Your task to perform on an android device: choose inbox layout in the gmail app Image 0: 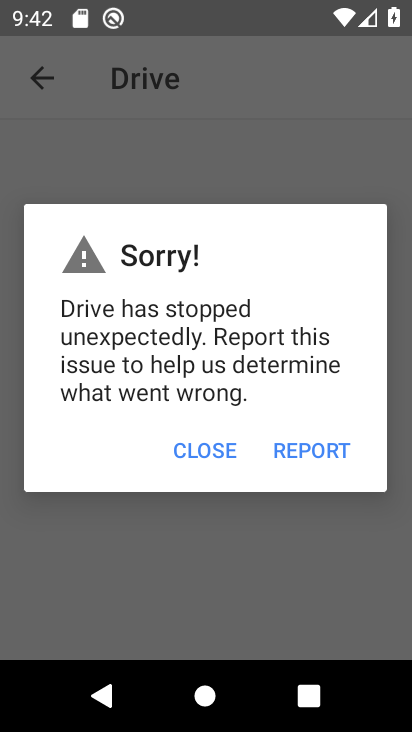
Step 0: press back button
Your task to perform on an android device: choose inbox layout in the gmail app Image 1: 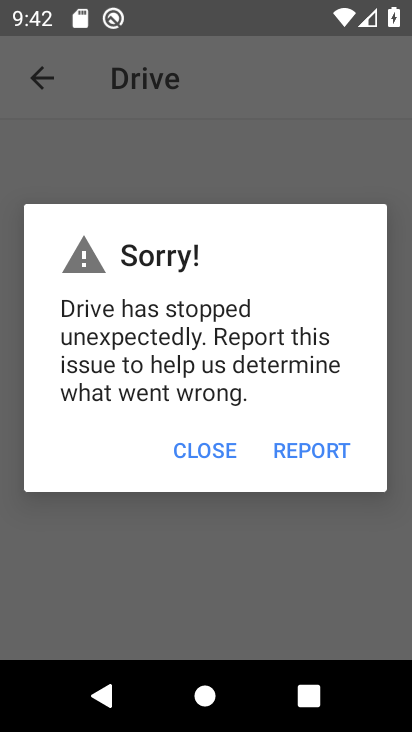
Step 1: press home button
Your task to perform on an android device: choose inbox layout in the gmail app Image 2: 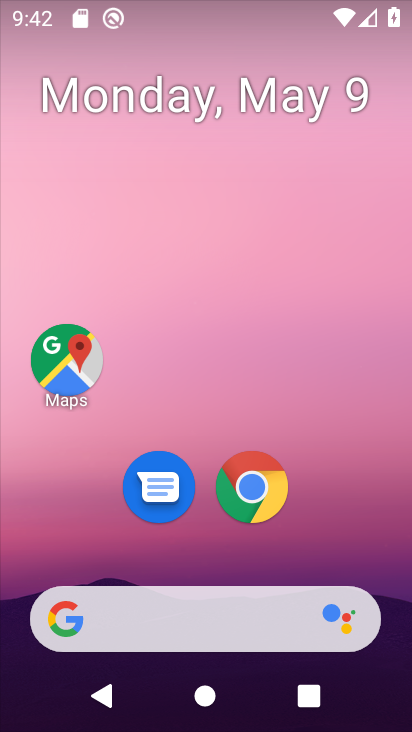
Step 2: drag from (323, 549) to (287, 7)
Your task to perform on an android device: choose inbox layout in the gmail app Image 3: 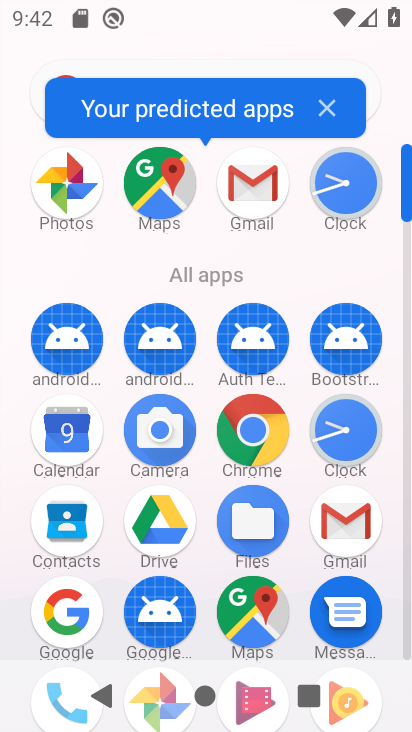
Step 3: drag from (23, 593) to (21, 278)
Your task to perform on an android device: choose inbox layout in the gmail app Image 4: 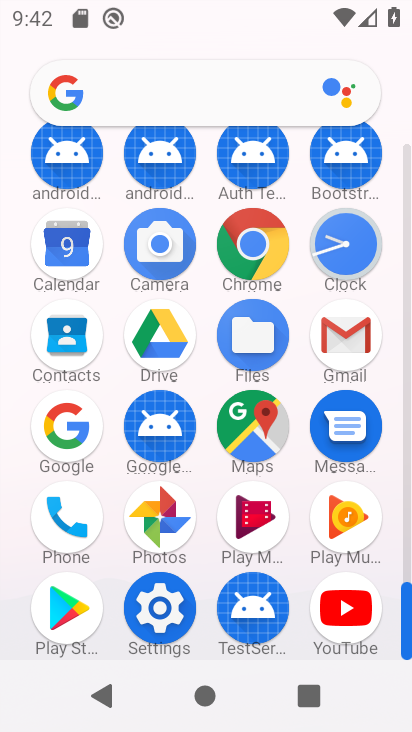
Step 4: click (342, 332)
Your task to perform on an android device: choose inbox layout in the gmail app Image 5: 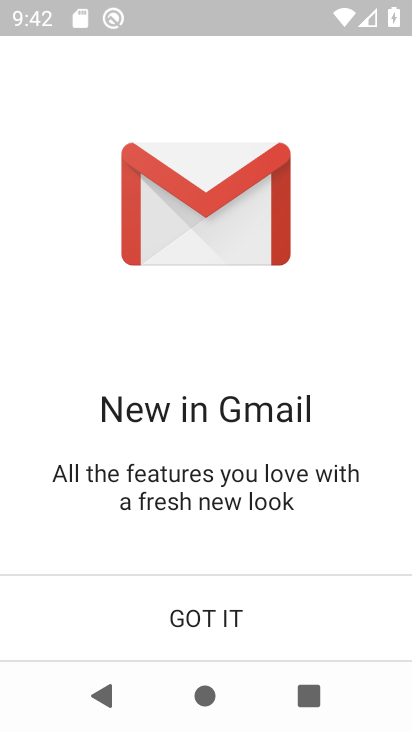
Step 5: click (252, 608)
Your task to perform on an android device: choose inbox layout in the gmail app Image 6: 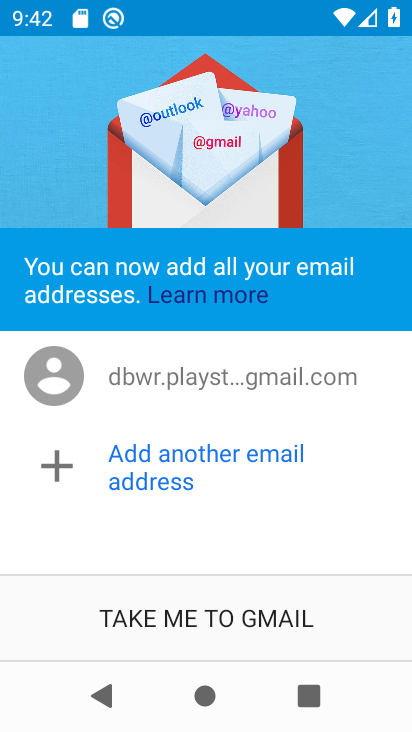
Step 6: click (237, 643)
Your task to perform on an android device: choose inbox layout in the gmail app Image 7: 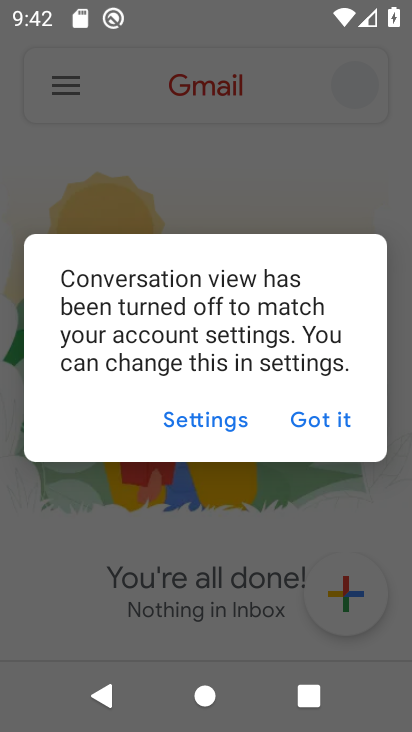
Step 7: click (332, 419)
Your task to perform on an android device: choose inbox layout in the gmail app Image 8: 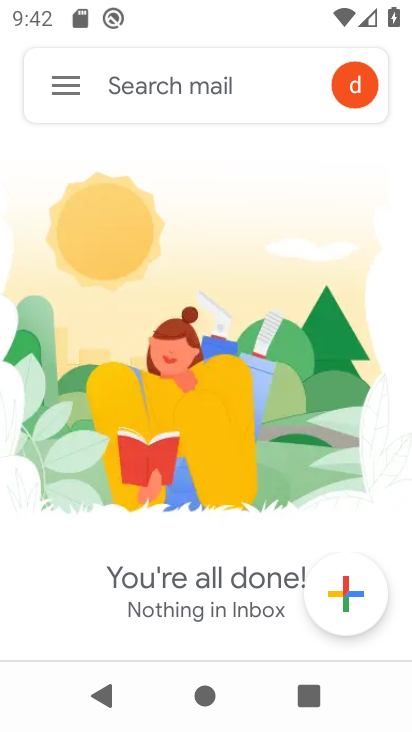
Step 8: click (62, 94)
Your task to perform on an android device: choose inbox layout in the gmail app Image 9: 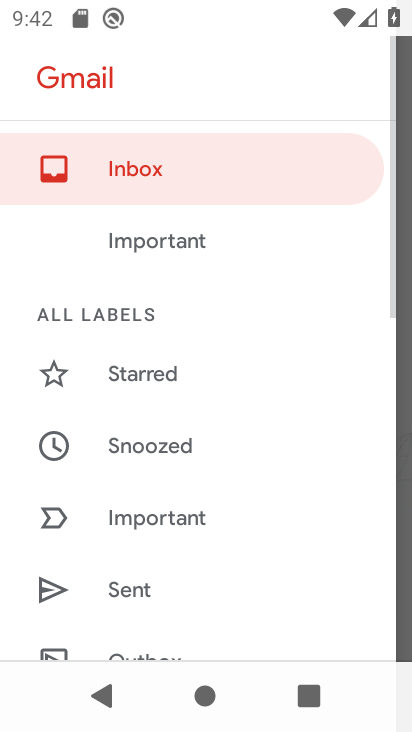
Step 9: drag from (188, 574) to (239, 161)
Your task to perform on an android device: choose inbox layout in the gmail app Image 10: 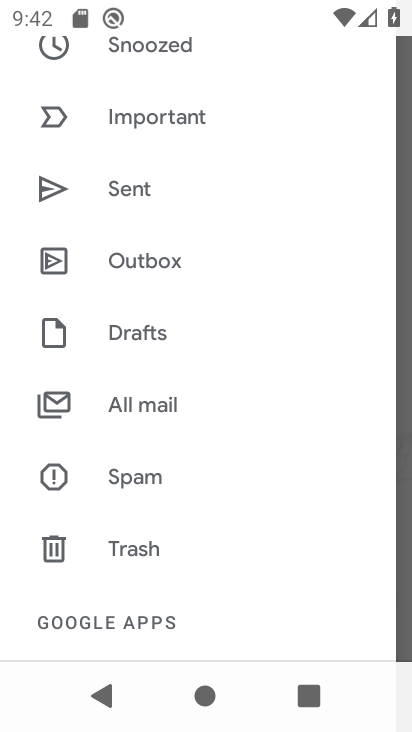
Step 10: drag from (199, 586) to (241, 77)
Your task to perform on an android device: choose inbox layout in the gmail app Image 11: 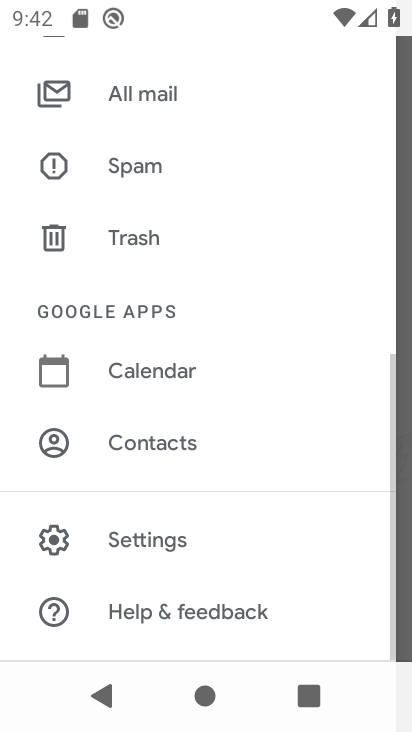
Step 11: click (199, 546)
Your task to perform on an android device: choose inbox layout in the gmail app Image 12: 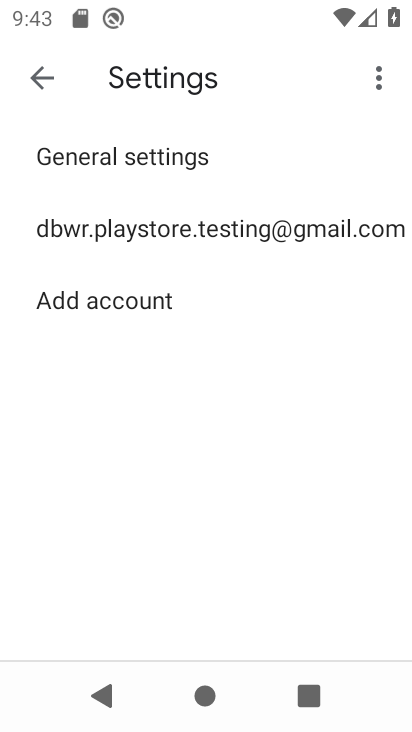
Step 12: click (227, 226)
Your task to perform on an android device: choose inbox layout in the gmail app Image 13: 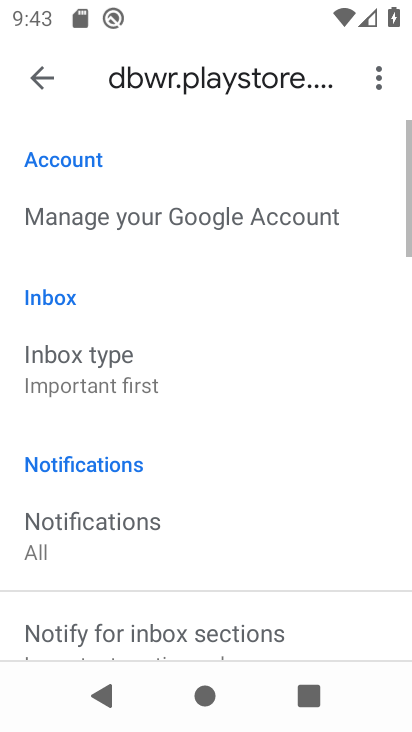
Step 13: drag from (219, 602) to (262, 239)
Your task to perform on an android device: choose inbox layout in the gmail app Image 14: 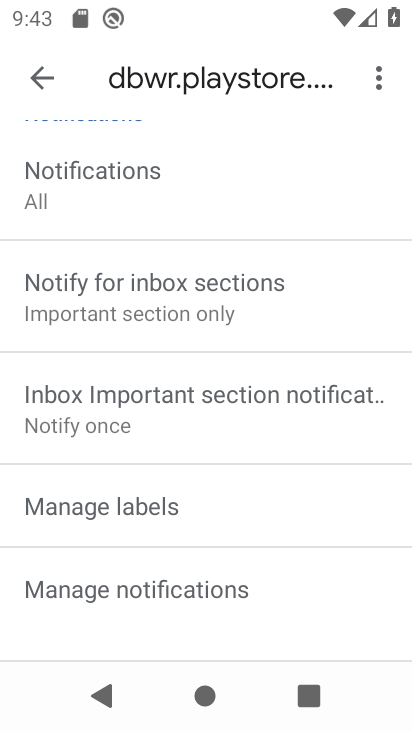
Step 14: drag from (252, 525) to (266, 144)
Your task to perform on an android device: choose inbox layout in the gmail app Image 15: 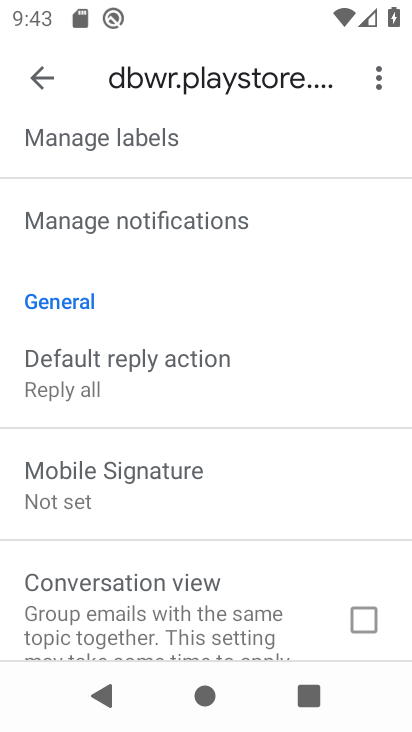
Step 15: drag from (201, 498) to (247, 89)
Your task to perform on an android device: choose inbox layout in the gmail app Image 16: 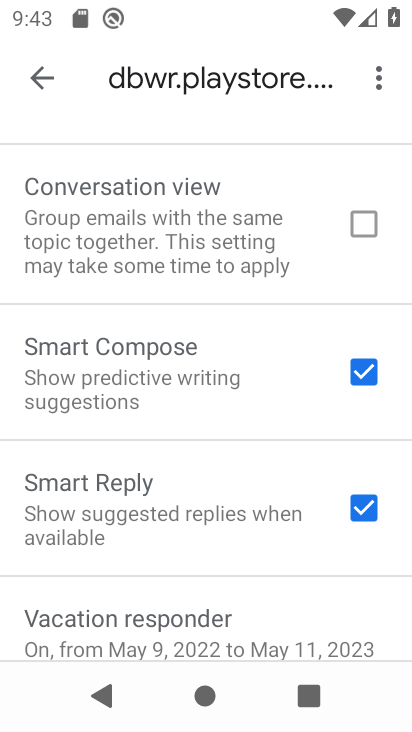
Step 16: drag from (184, 517) to (223, 212)
Your task to perform on an android device: choose inbox layout in the gmail app Image 17: 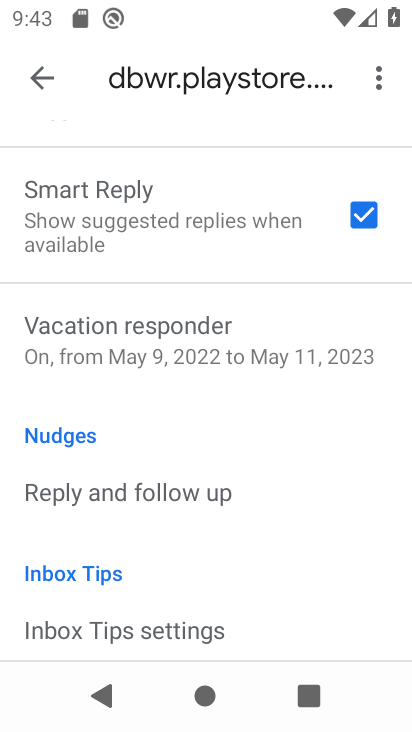
Step 17: drag from (177, 542) to (235, 189)
Your task to perform on an android device: choose inbox layout in the gmail app Image 18: 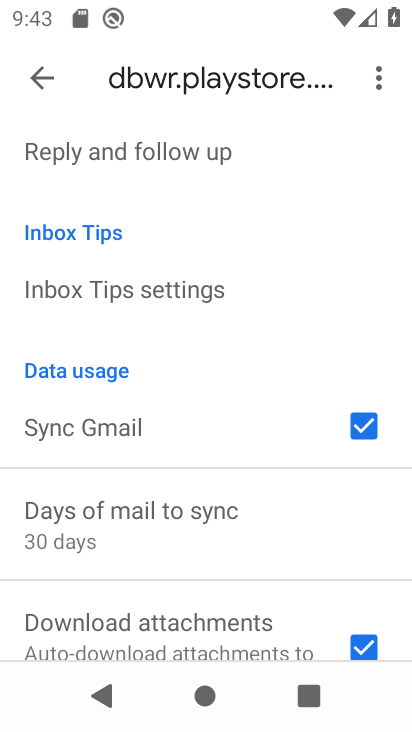
Step 18: drag from (159, 581) to (234, 180)
Your task to perform on an android device: choose inbox layout in the gmail app Image 19: 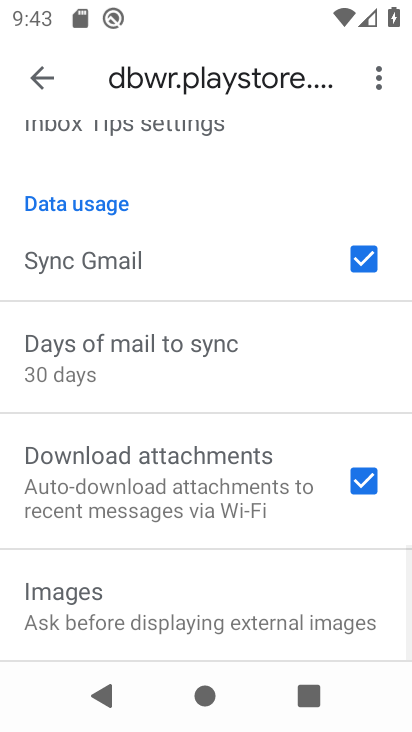
Step 19: drag from (234, 244) to (235, 572)
Your task to perform on an android device: choose inbox layout in the gmail app Image 20: 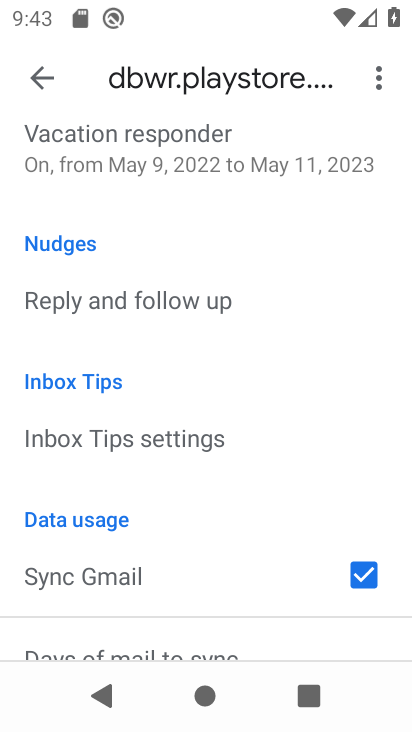
Step 20: drag from (268, 245) to (220, 575)
Your task to perform on an android device: choose inbox layout in the gmail app Image 21: 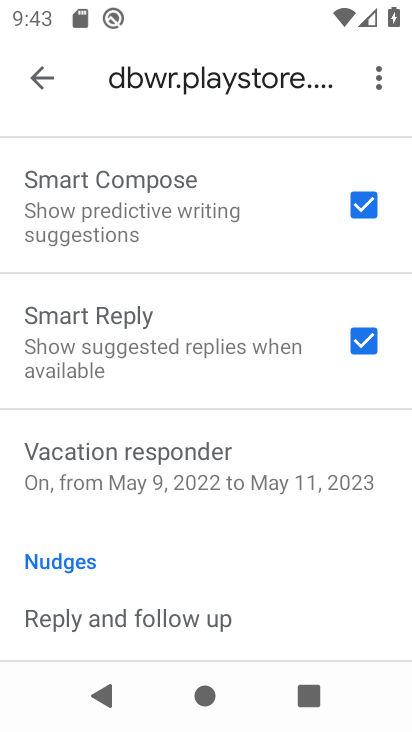
Step 21: drag from (223, 209) to (205, 540)
Your task to perform on an android device: choose inbox layout in the gmail app Image 22: 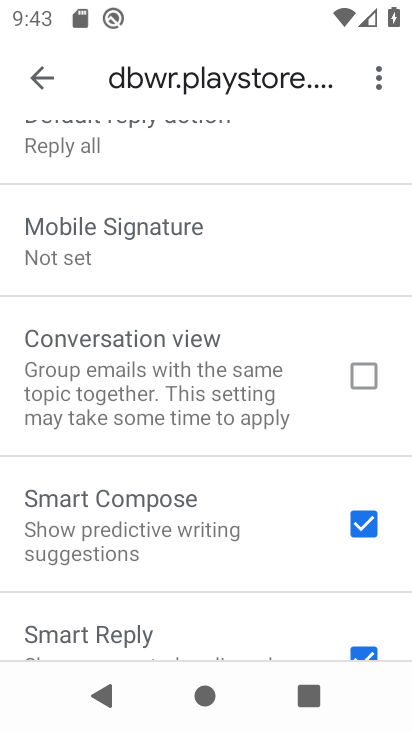
Step 22: drag from (227, 216) to (164, 524)
Your task to perform on an android device: choose inbox layout in the gmail app Image 23: 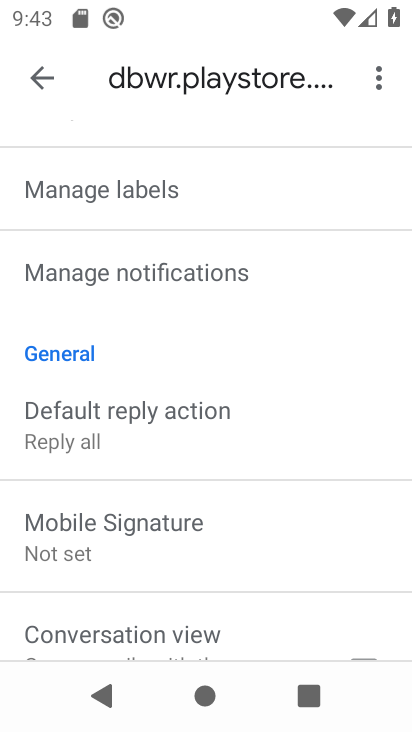
Step 23: drag from (231, 287) to (194, 532)
Your task to perform on an android device: choose inbox layout in the gmail app Image 24: 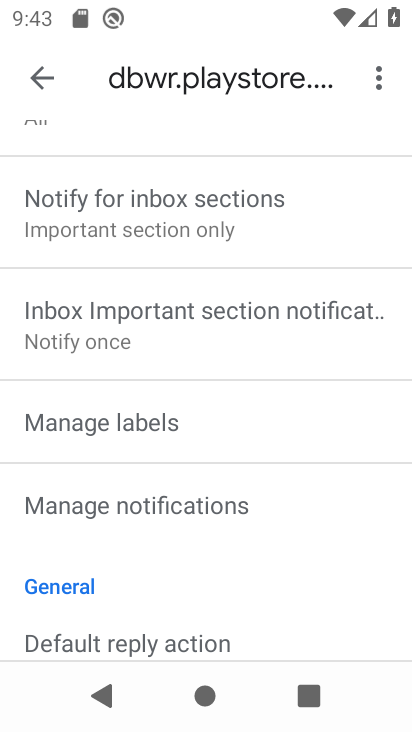
Step 24: drag from (242, 203) to (204, 545)
Your task to perform on an android device: choose inbox layout in the gmail app Image 25: 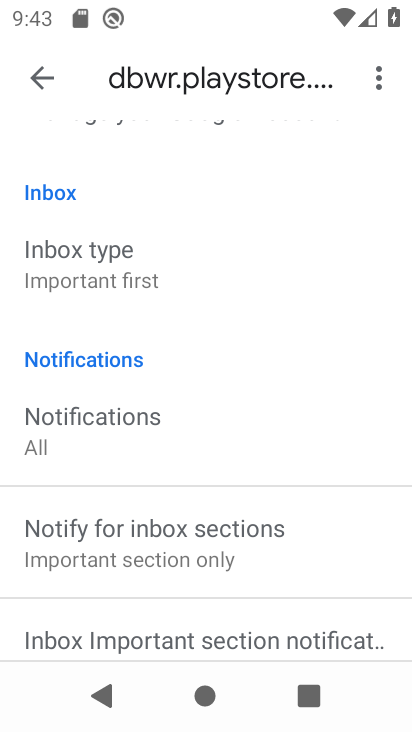
Step 25: click (170, 272)
Your task to perform on an android device: choose inbox layout in the gmail app Image 26: 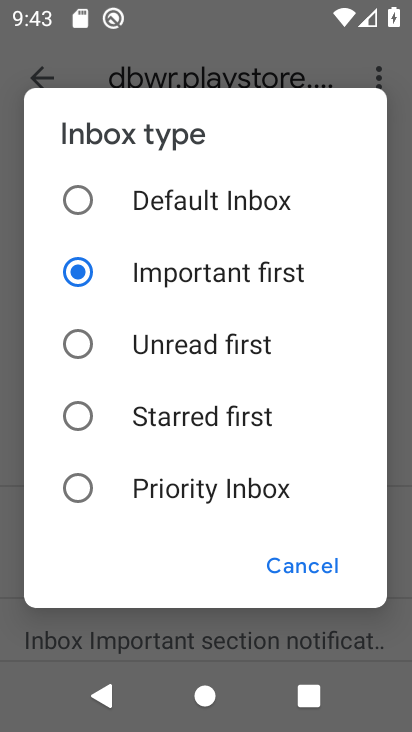
Step 26: click (152, 202)
Your task to perform on an android device: choose inbox layout in the gmail app Image 27: 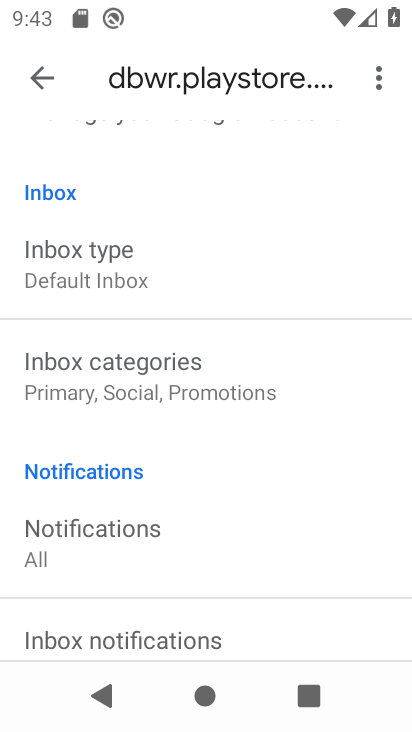
Step 27: task complete